Your task to perform on an android device: check android version Image 0: 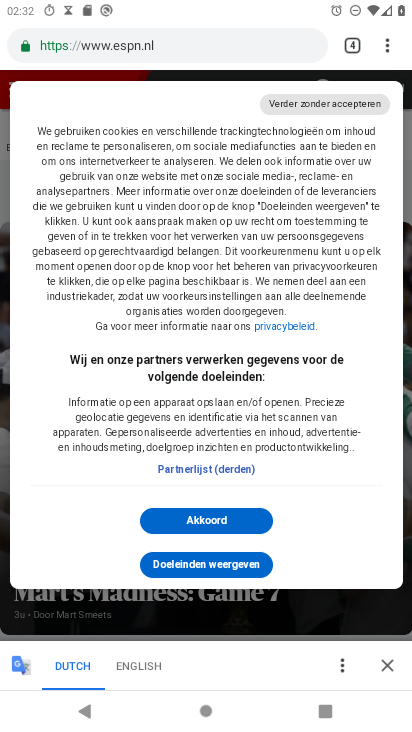
Step 0: press home button
Your task to perform on an android device: check android version Image 1: 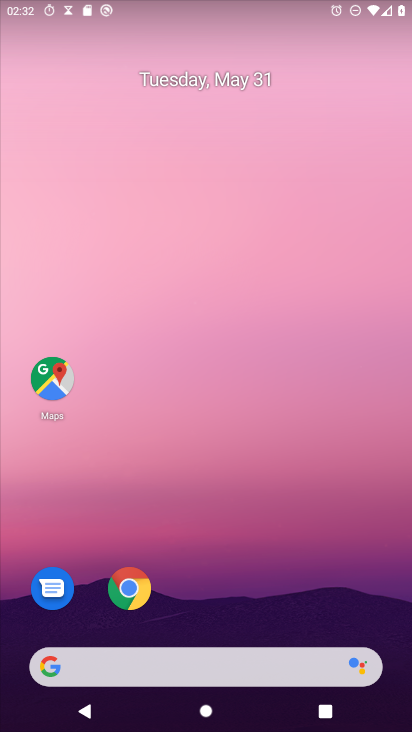
Step 1: drag from (348, 659) to (358, 13)
Your task to perform on an android device: check android version Image 2: 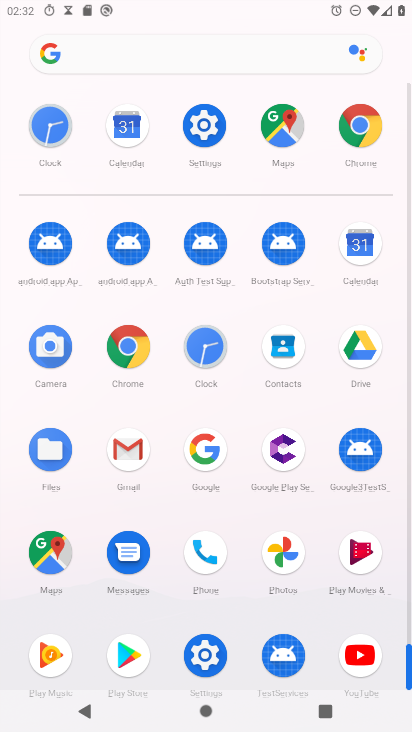
Step 2: click (217, 127)
Your task to perform on an android device: check android version Image 3: 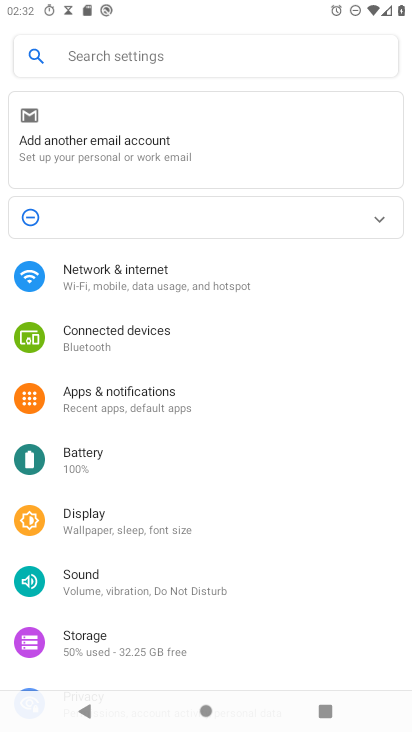
Step 3: drag from (104, 654) to (171, 3)
Your task to perform on an android device: check android version Image 4: 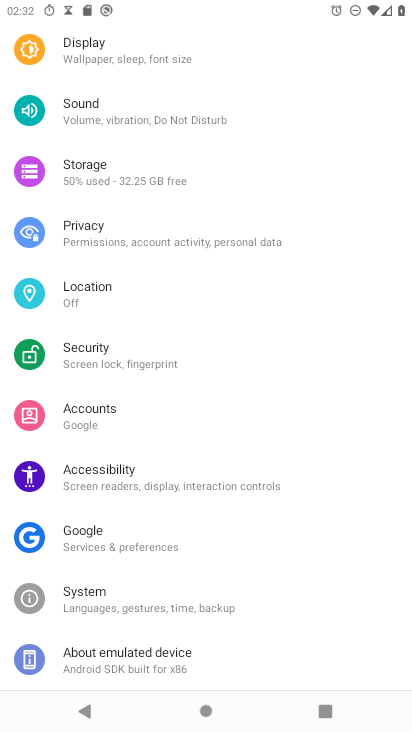
Step 4: click (178, 674)
Your task to perform on an android device: check android version Image 5: 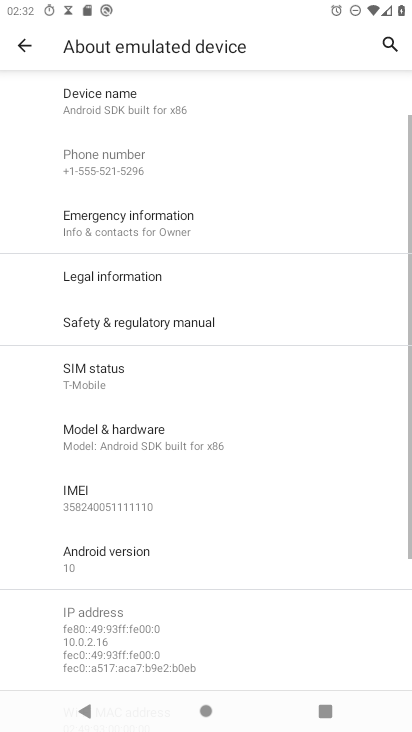
Step 5: click (173, 573)
Your task to perform on an android device: check android version Image 6: 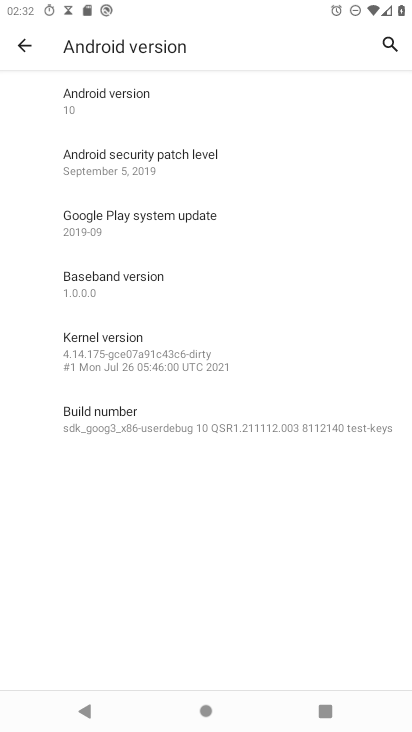
Step 6: task complete